Your task to perform on an android device: Open display settings Image 0: 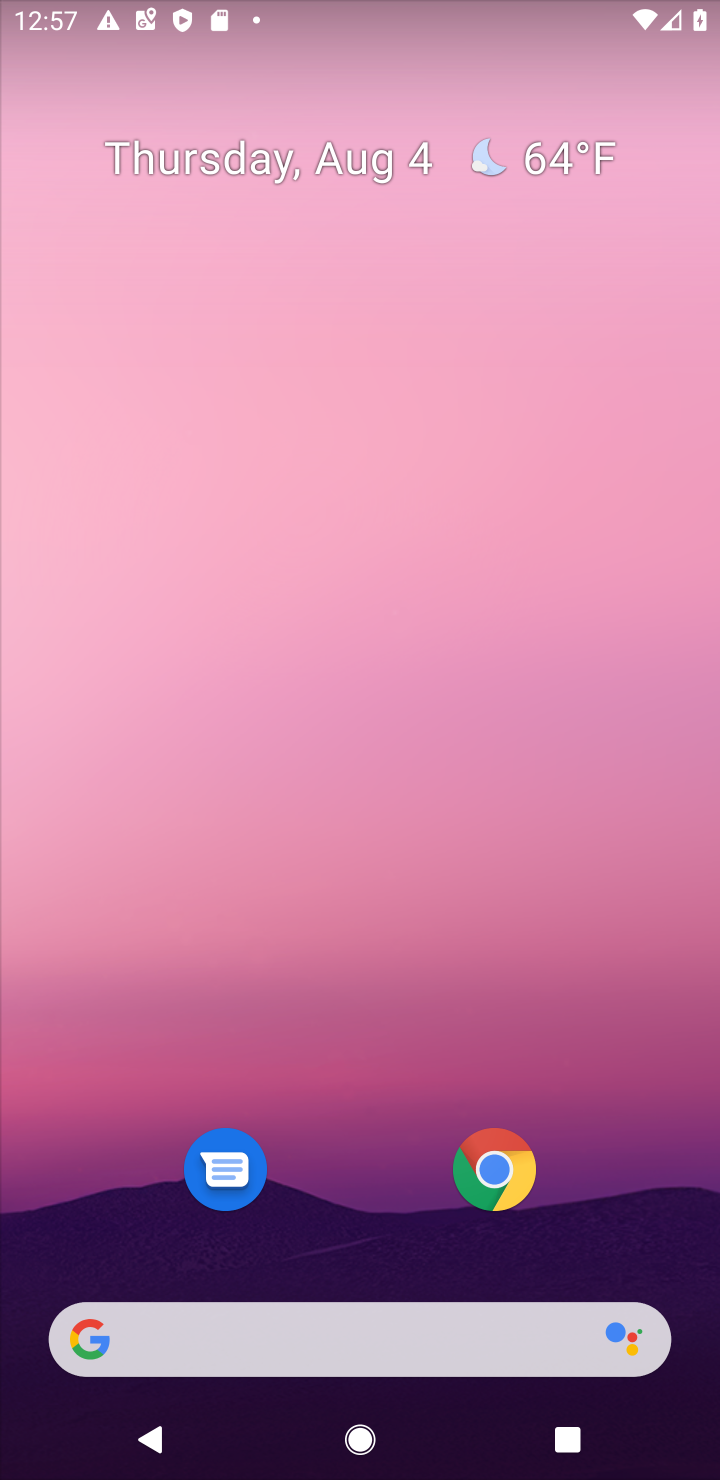
Step 0: press home button
Your task to perform on an android device: Open display settings Image 1: 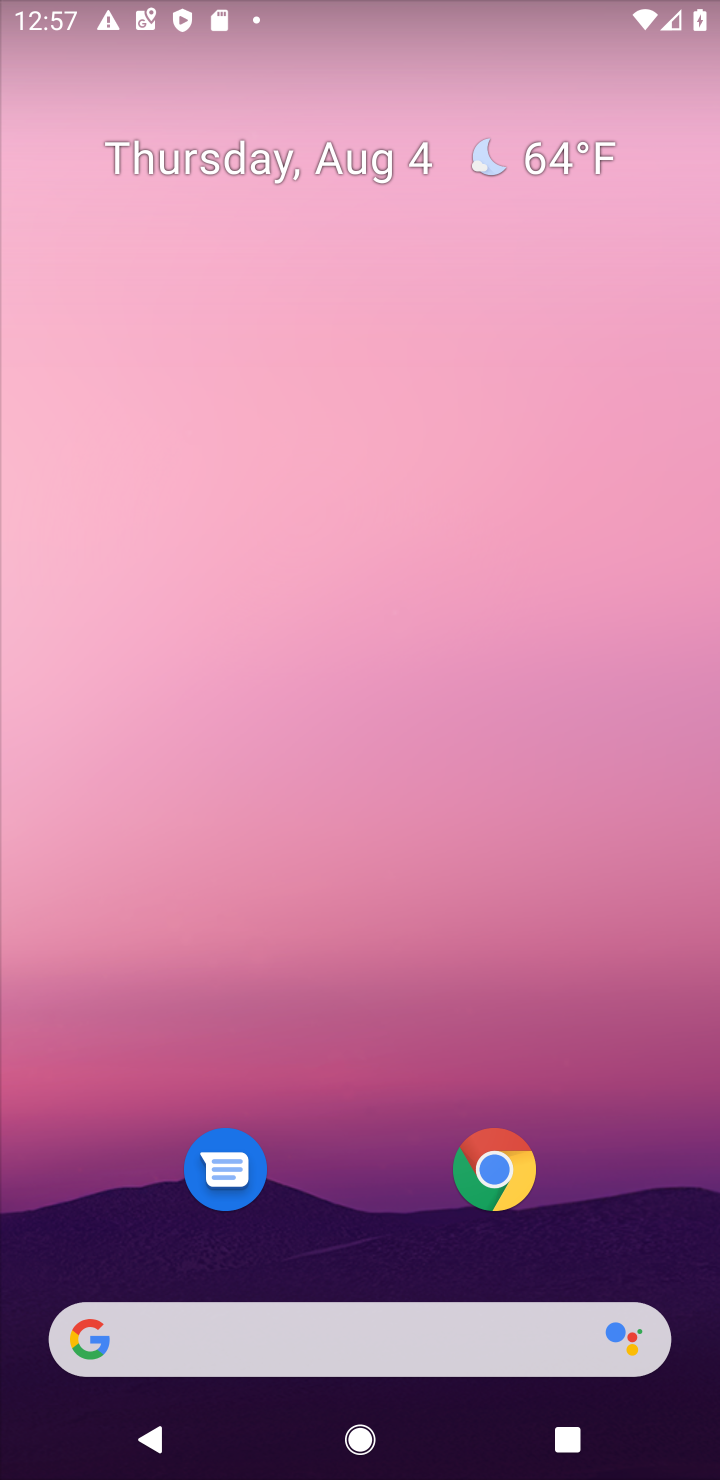
Step 1: drag from (324, 1076) to (339, 45)
Your task to perform on an android device: Open display settings Image 2: 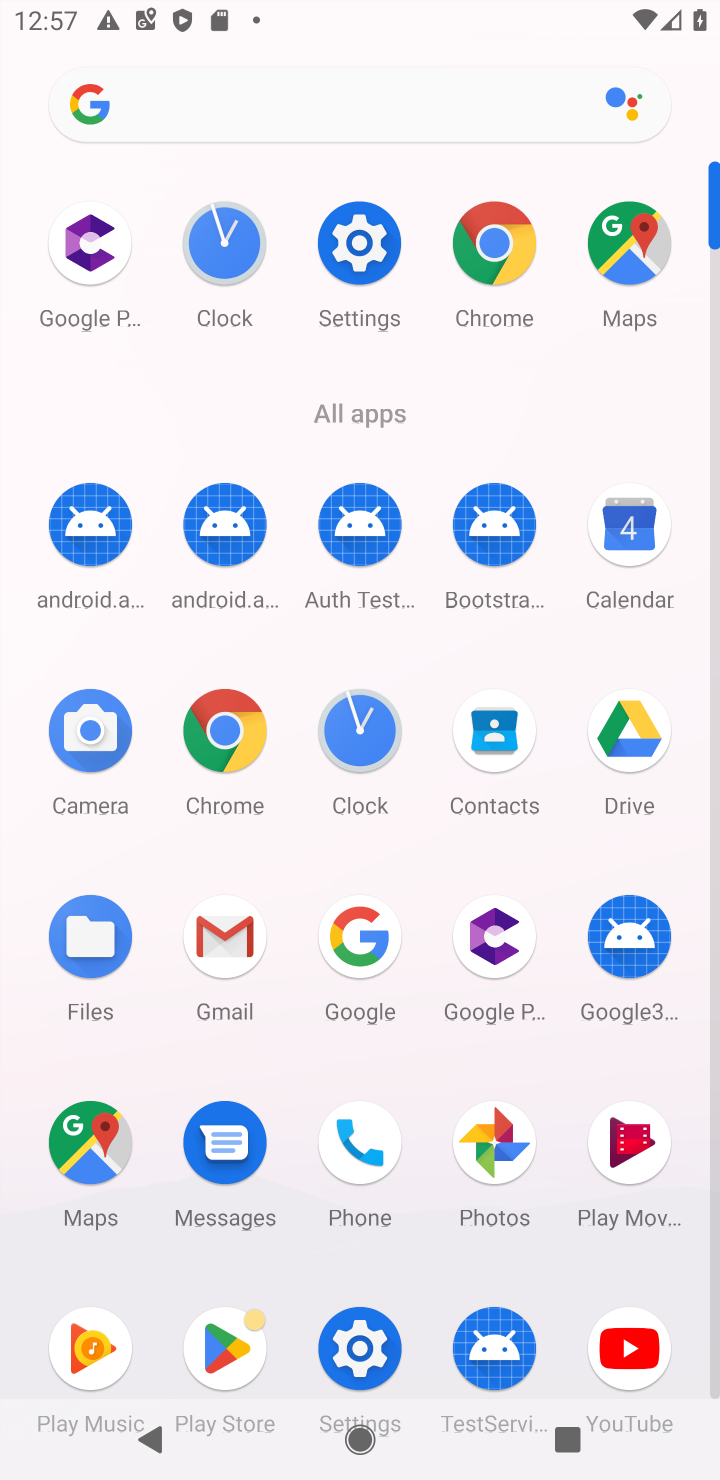
Step 2: click (356, 257)
Your task to perform on an android device: Open display settings Image 3: 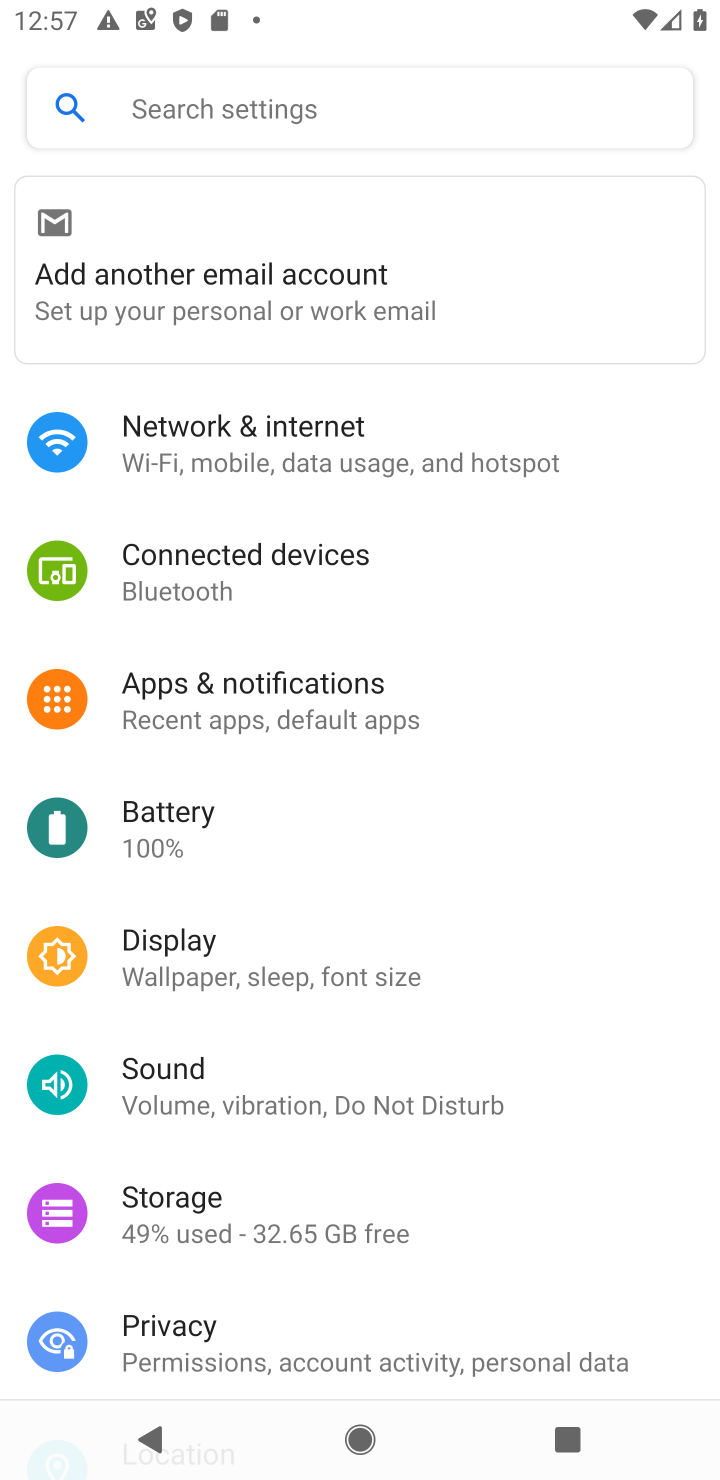
Step 3: click (185, 864)
Your task to perform on an android device: Open display settings Image 4: 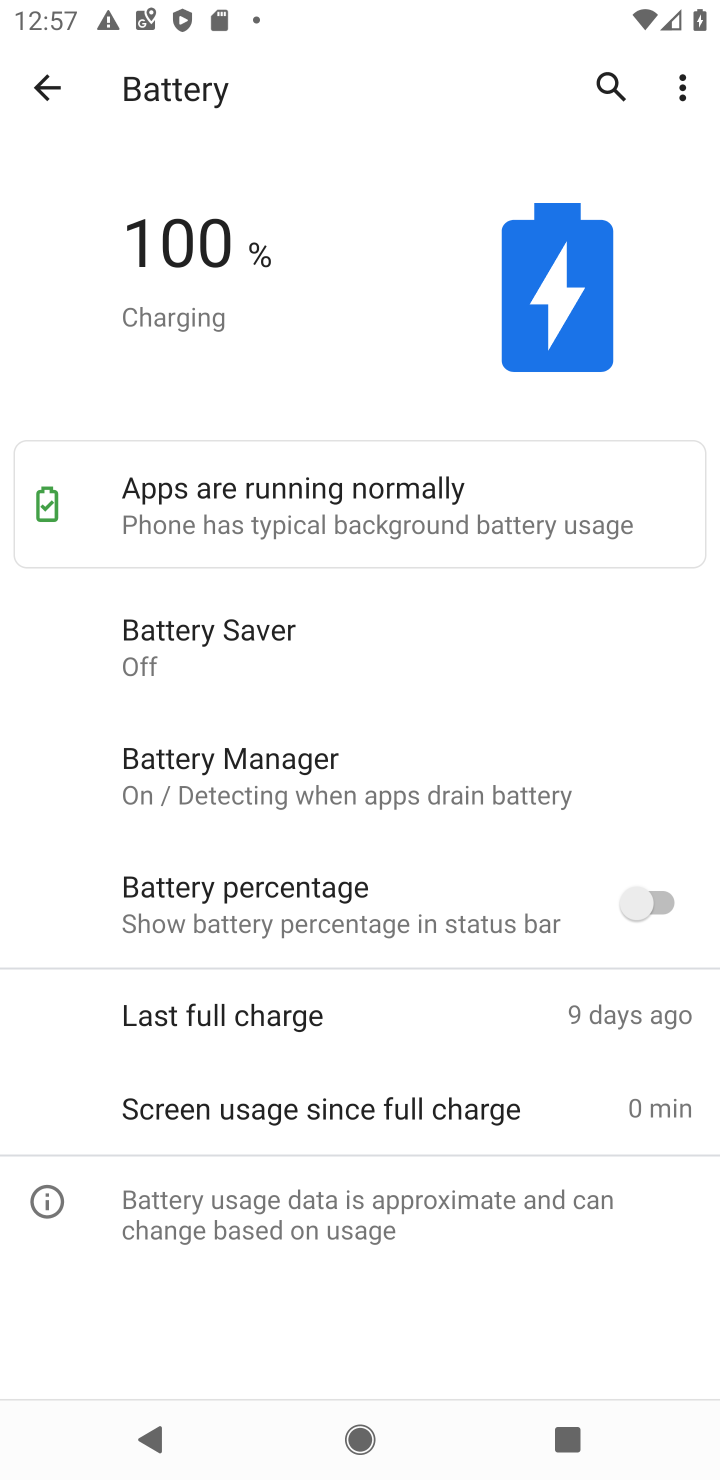
Step 4: click (33, 74)
Your task to perform on an android device: Open display settings Image 5: 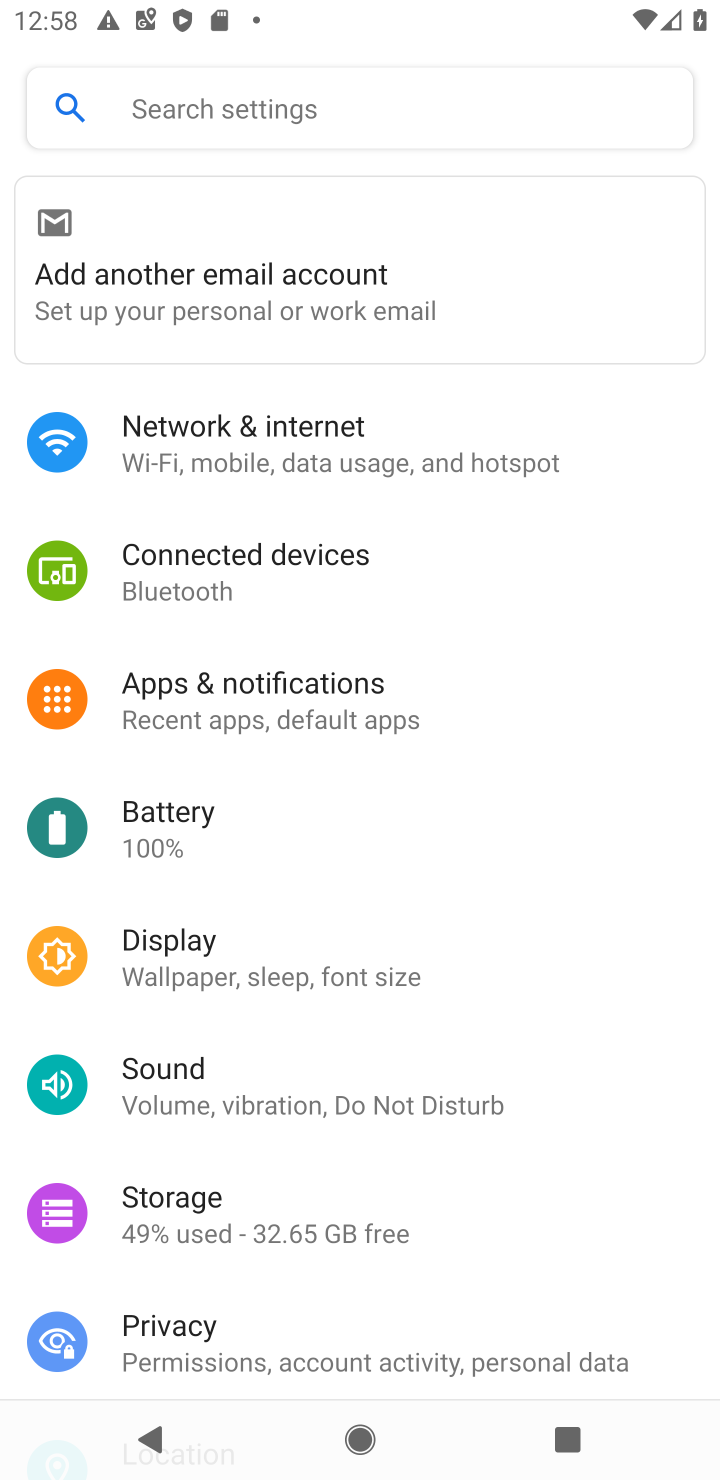
Step 5: click (207, 985)
Your task to perform on an android device: Open display settings Image 6: 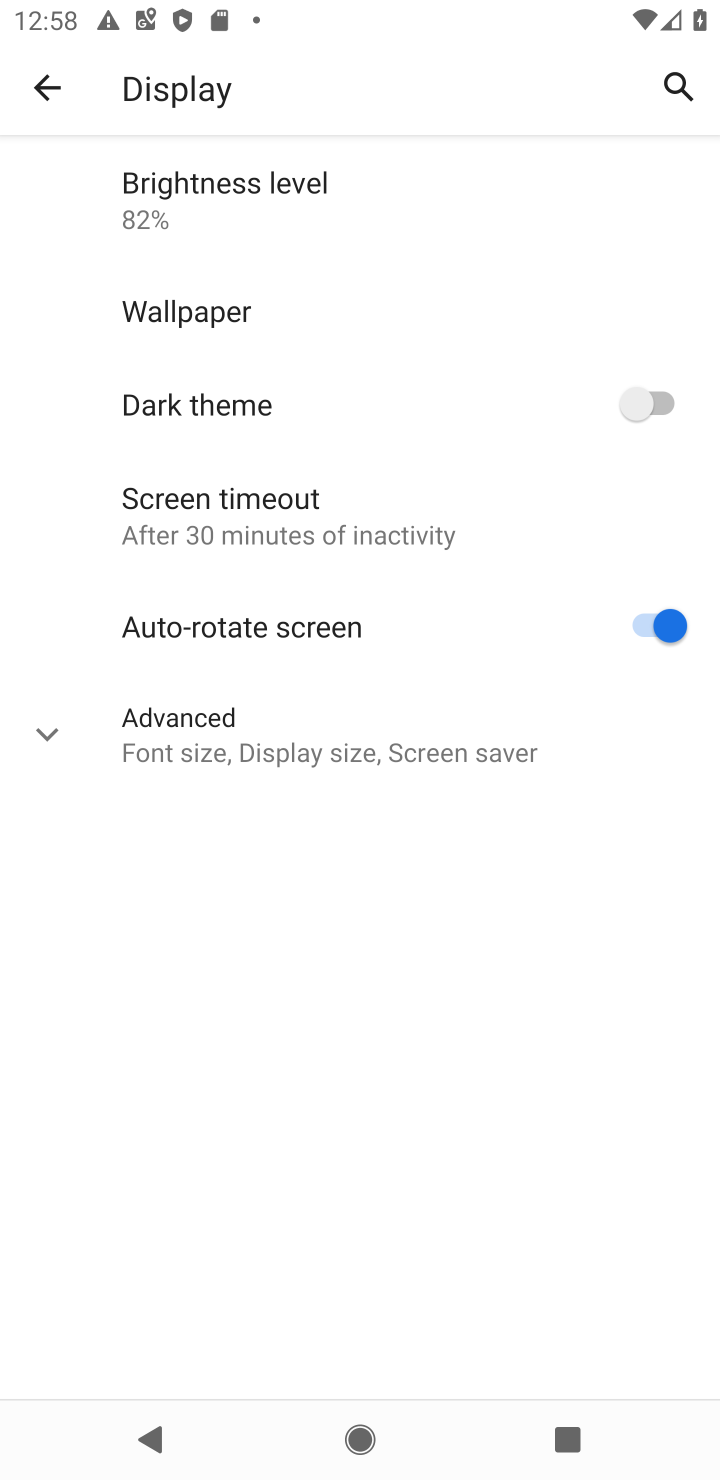
Step 6: task complete